Your task to perform on an android device: install app "Upside-Cash back on gas & food" Image 0: 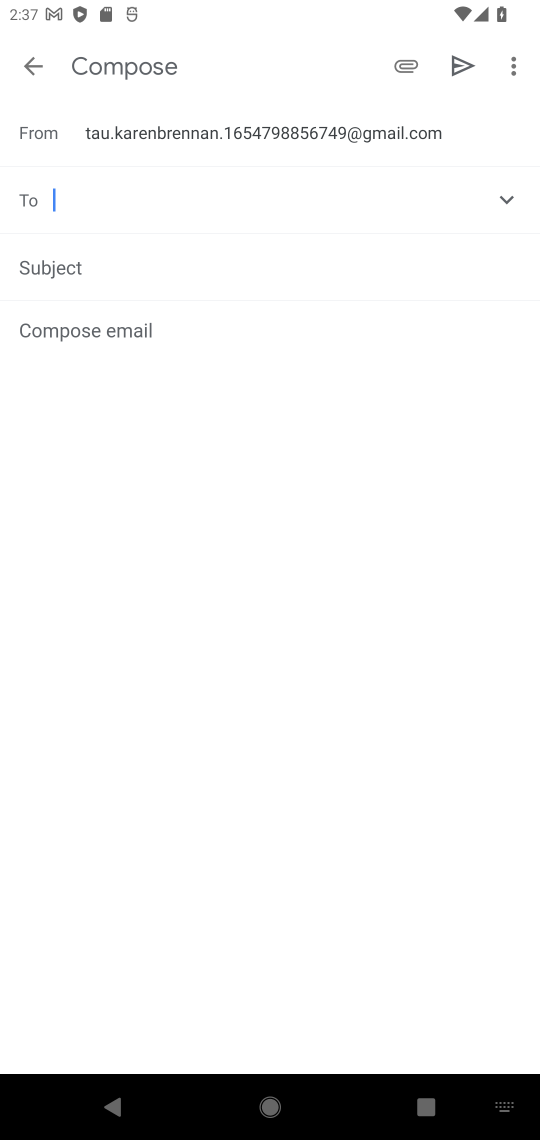
Step 0: press home button
Your task to perform on an android device: install app "Upside-Cash back on gas & food" Image 1: 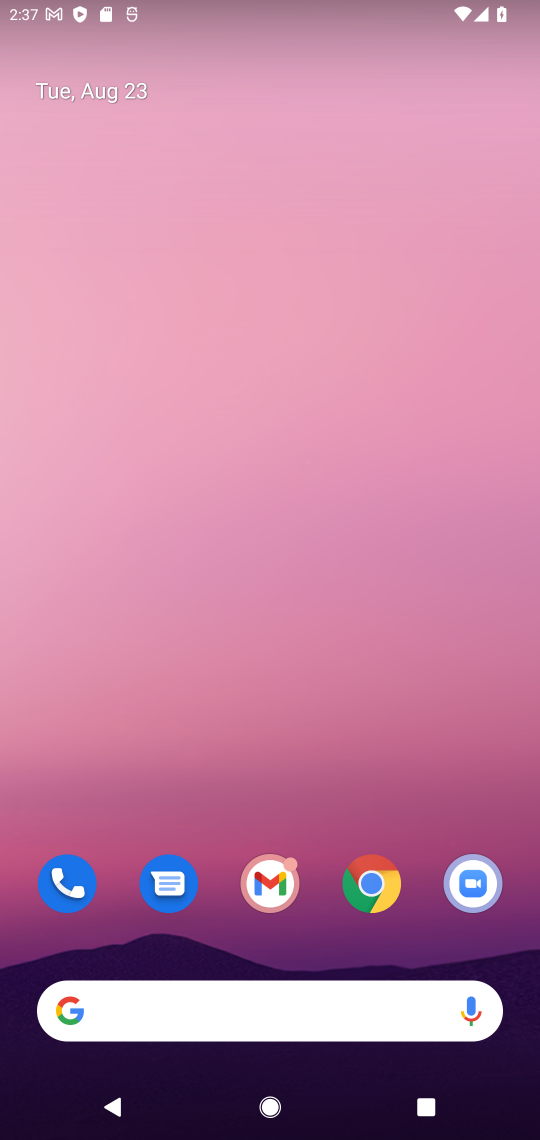
Step 1: click (274, 665)
Your task to perform on an android device: install app "Upside-Cash back on gas & food" Image 2: 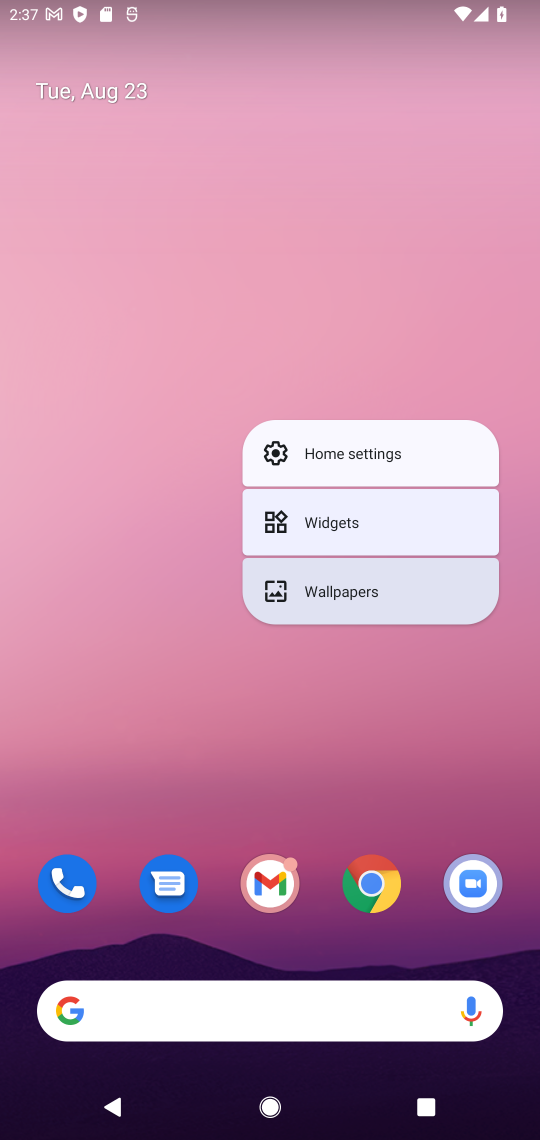
Step 2: drag from (259, 974) to (259, 427)
Your task to perform on an android device: install app "Upside-Cash back on gas & food" Image 3: 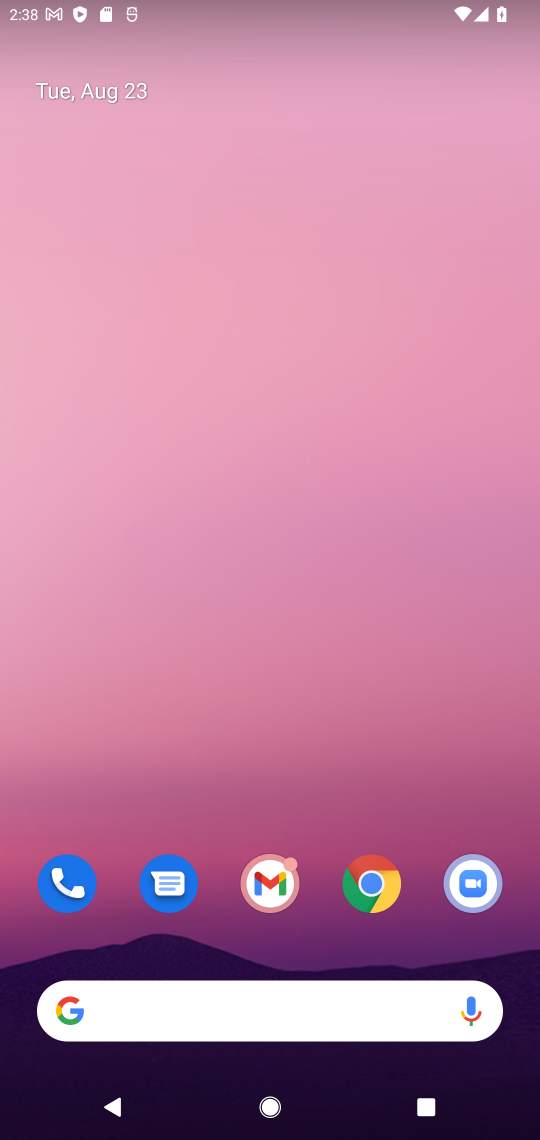
Step 3: drag from (352, 990) to (351, 75)
Your task to perform on an android device: install app "Upside-Cash back on gas & food" Image 4: 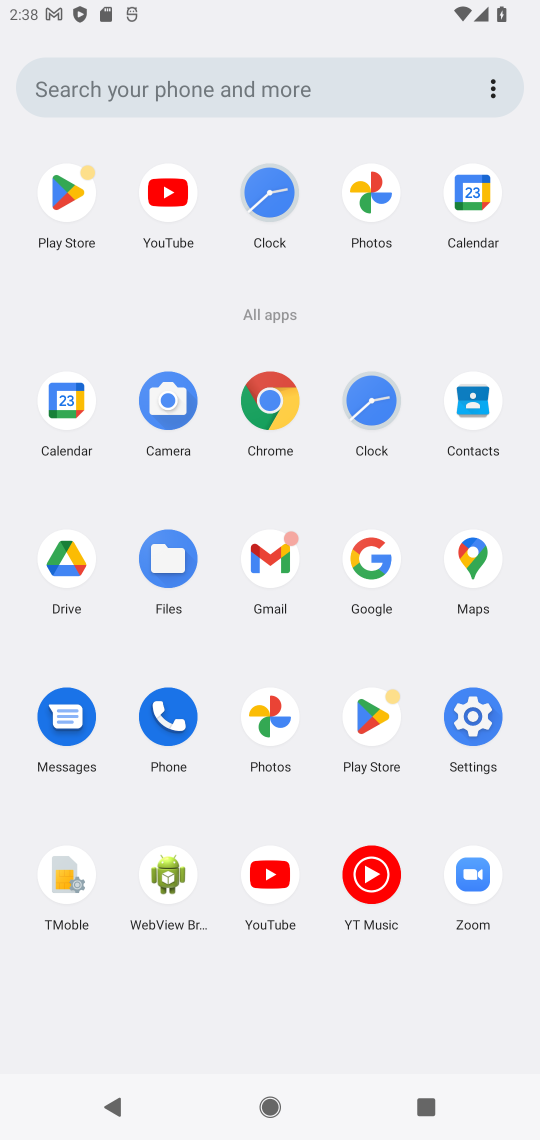
Step 4: click (394, 719)
Your task to perform on an android device: install app "Upside-Cash back on gas & food" Image 5: 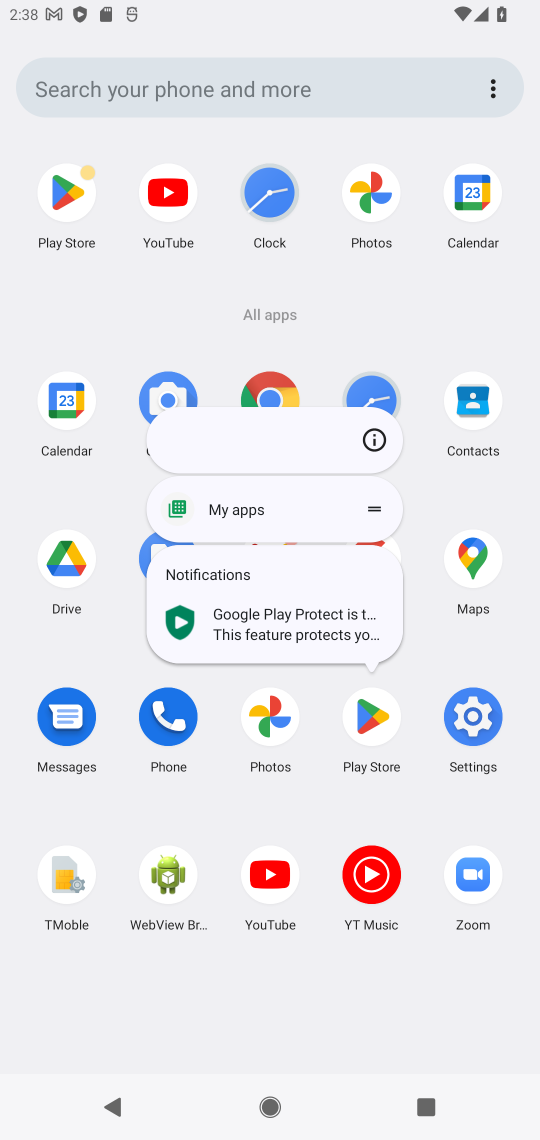
Step 5: click (76, 199)
Your task to perform on an android device: install app "Upside-Cash back on gas & food" Image 6: 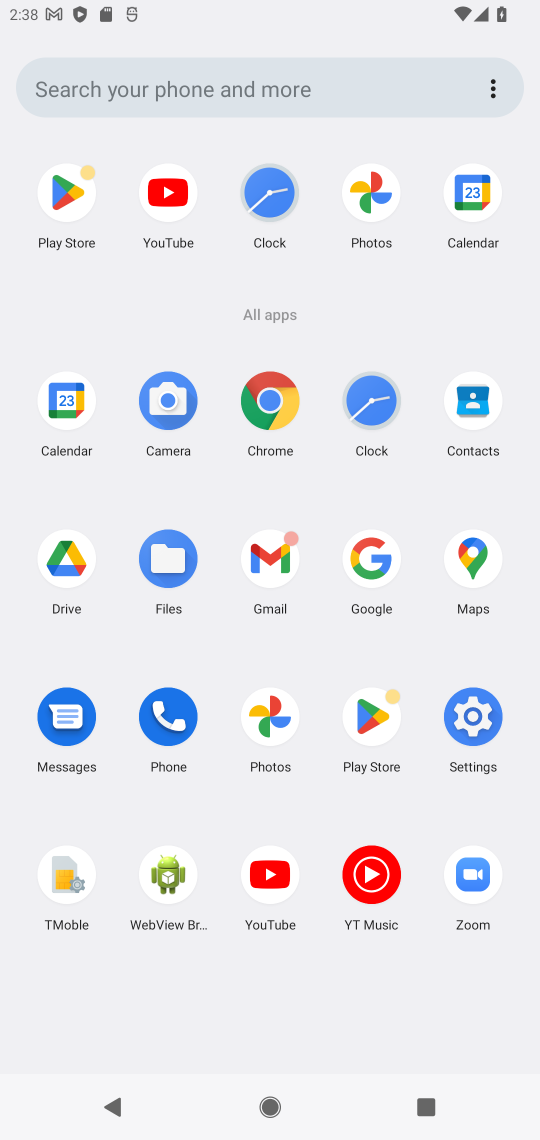
Step 6: click (72, 190)
Your task to perform on an android device: install app "Upside-Cash back on gas & food" Image 7: 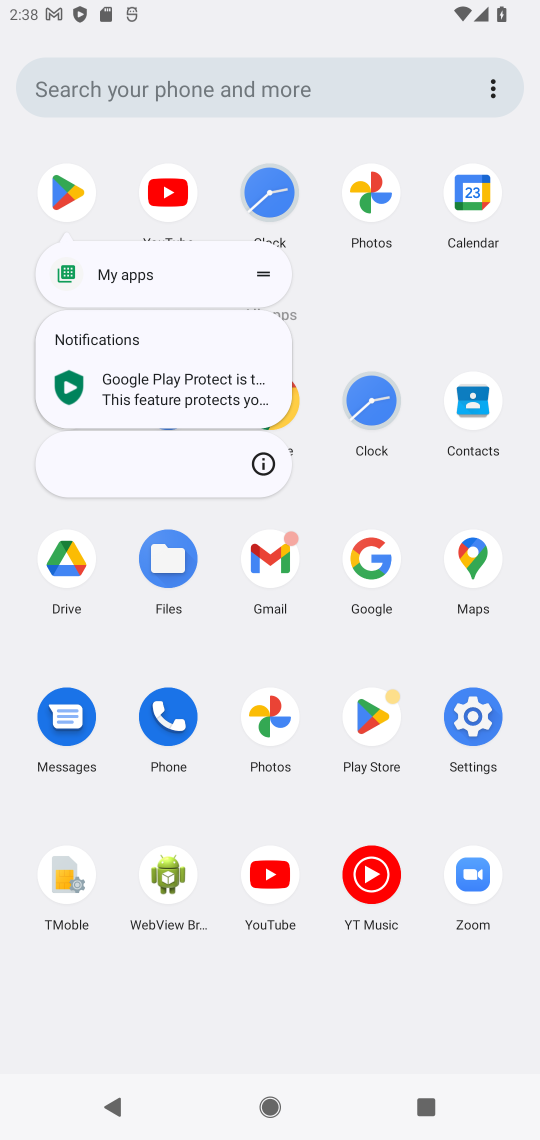
Step 7: click (72, 203)
Your task to perform on an android device: install app "Upside-Cash back on gas & food" Image 8: 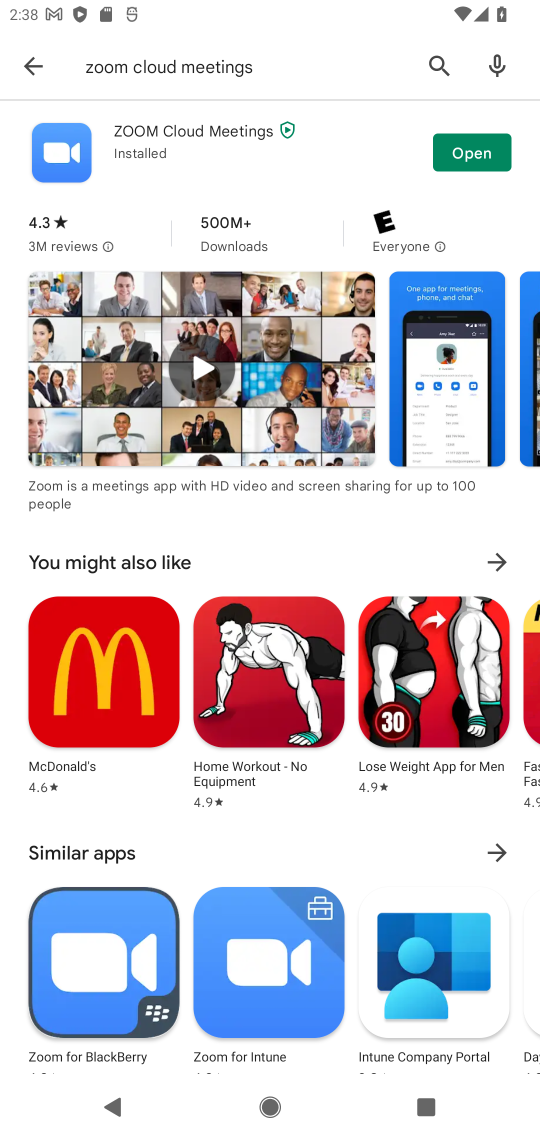
Step 8: click (505, 69)
Your task to perform on an android device: install app "Upside-Cash back on gas & food" Image 9: 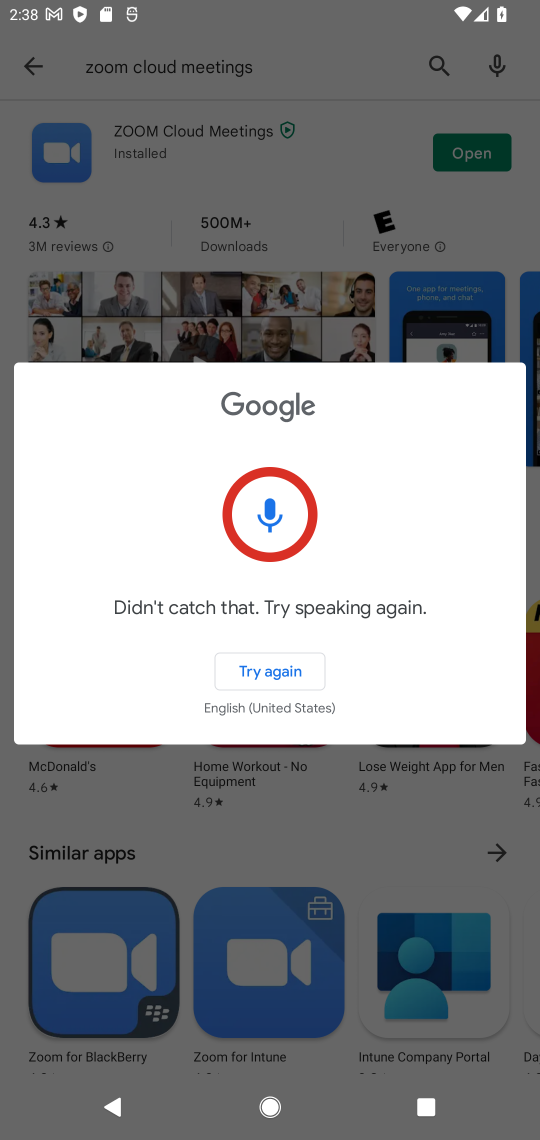
Step 9: click (465, 114)
Your task to perform on an android device: install app "Upside-Cash back on gas & food" Image 10: 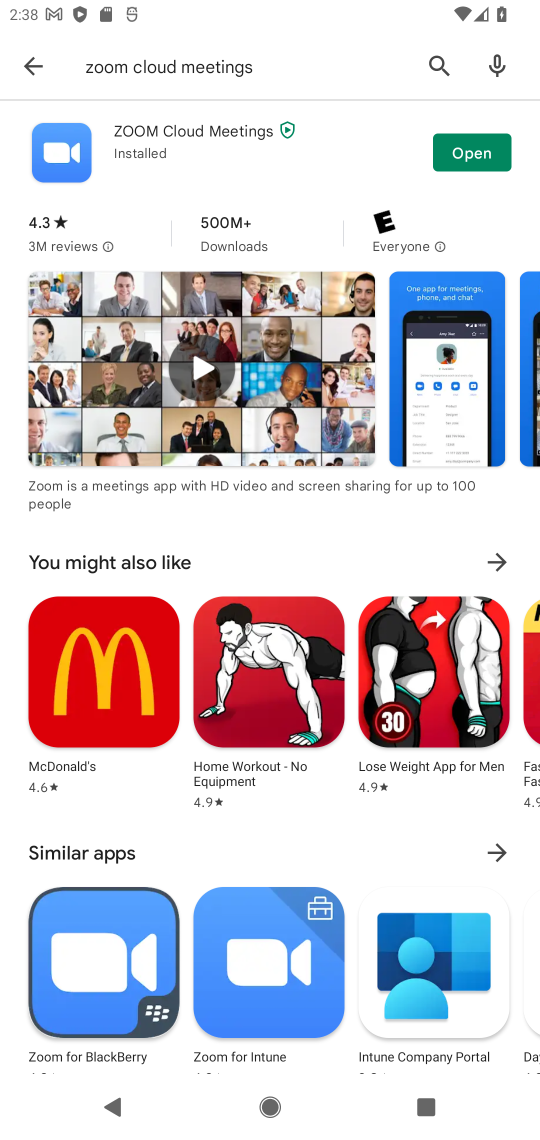
Step 10: click (435, 66)
Your task to perform on an android device: install app "Upside-Cash back on gas & food" Image 11: 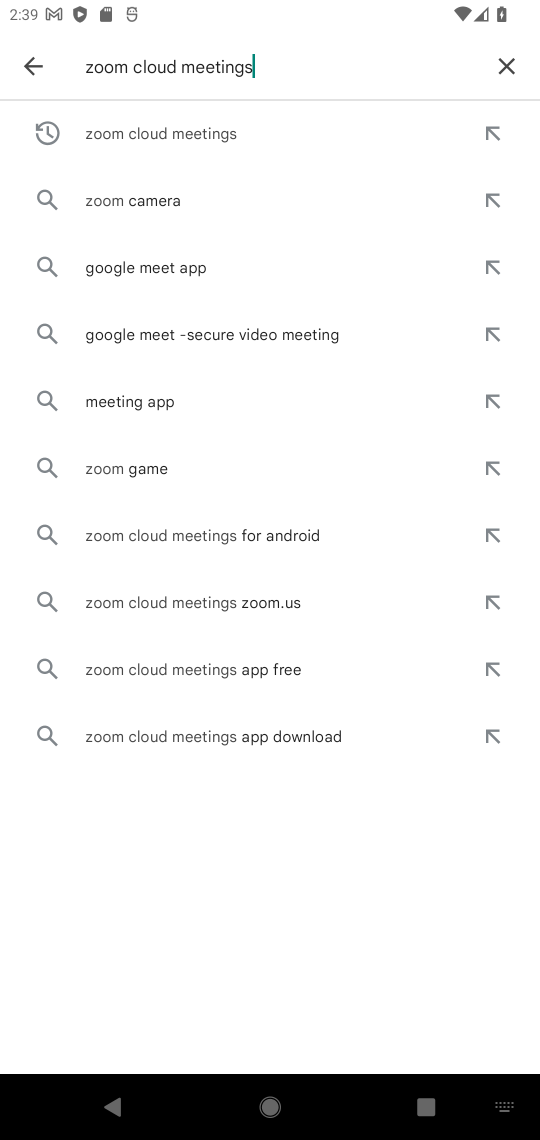
Step 11: click (506, 70)
Your task to perform on an android device: install app "Upside-Cash back on gas & food" Image 12: 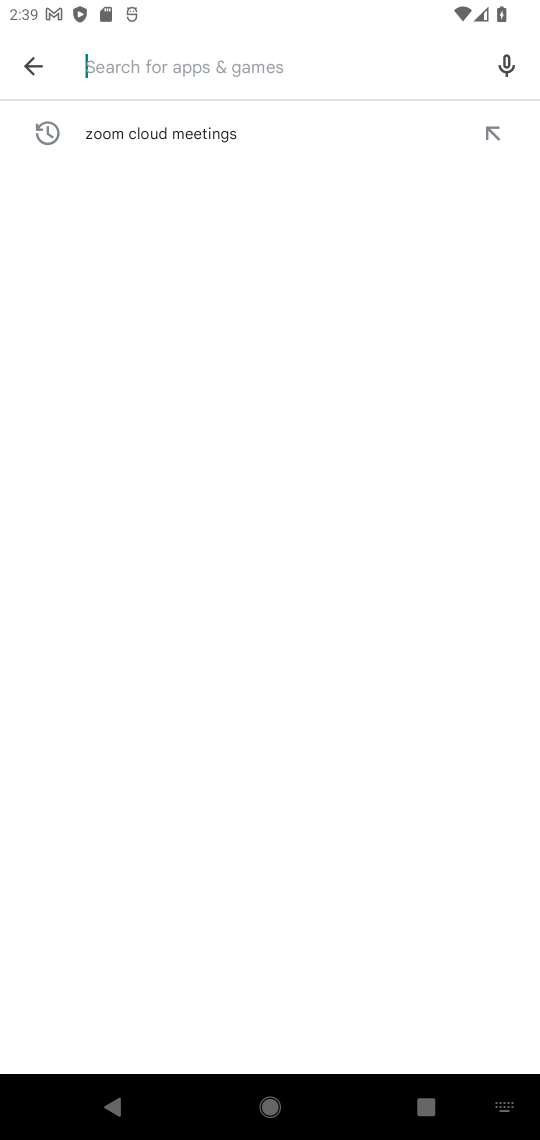
Step 12: type "Upside-Cash back on gas & food"
Your task to perform on an android device: install app "Upside-Cash back on gas & food" Image 13: 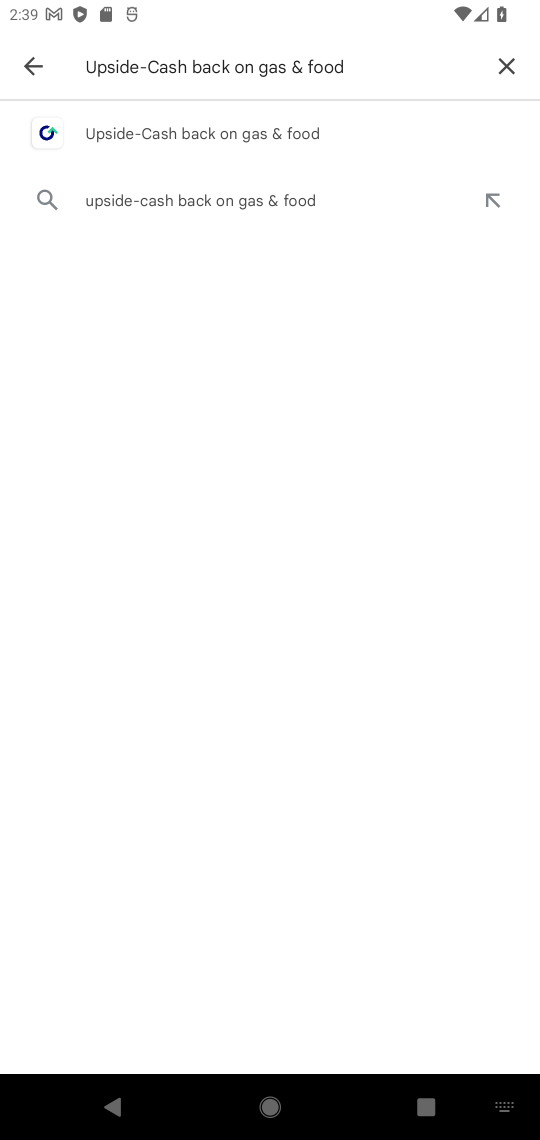
Step 13: click (258, 133)
Your task to perform on an android device: install app "Upside-Cash back on gas & food" Image 14: 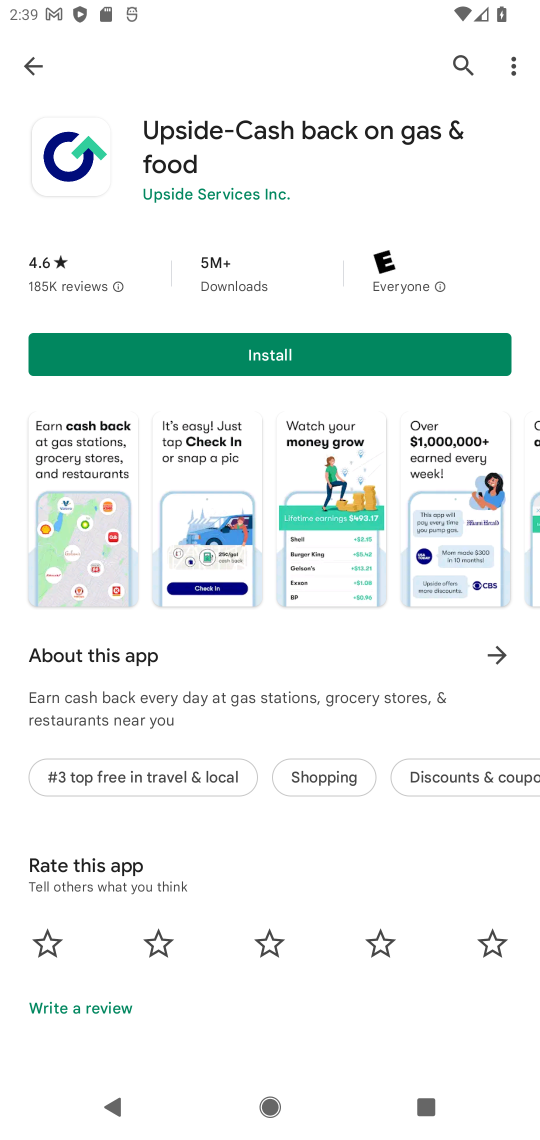
Step 14: click (280, 354)
Your task to perform on an android device: install app "Upside-Cash back on gas & food" Image 15: 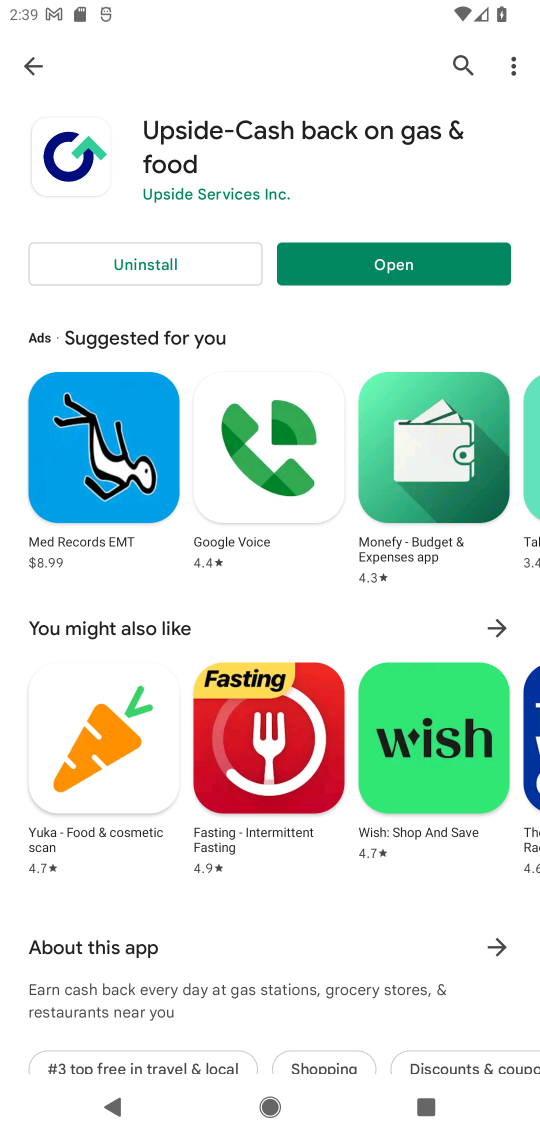
Step 15: click (429, 264)
Your task to perform on an android device: install app "Upside-Cash back on gas & food" Image 16: 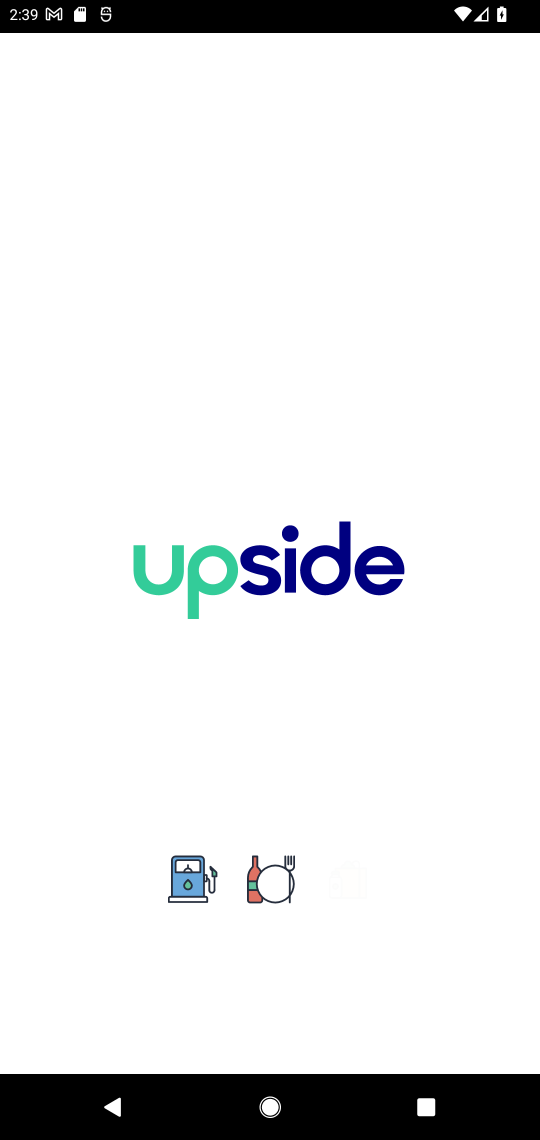
Step 16: task complete